Your task to perform on an android device: Go to battery settings Image 0: 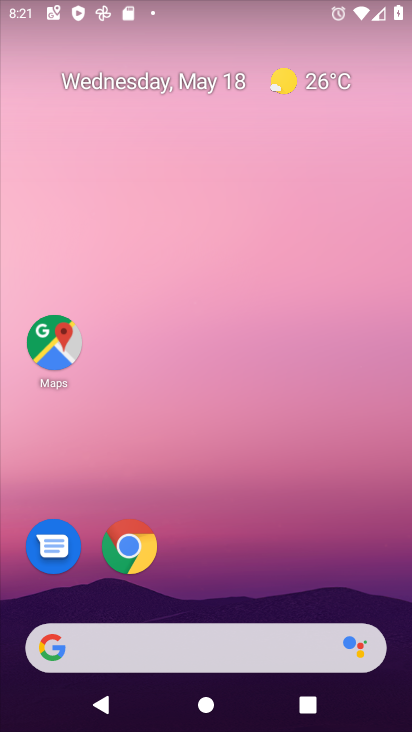
Step 0: drag from (386, 629) to (65, 0)
Your task to perform on an android device: Go to battery settings Image 1: 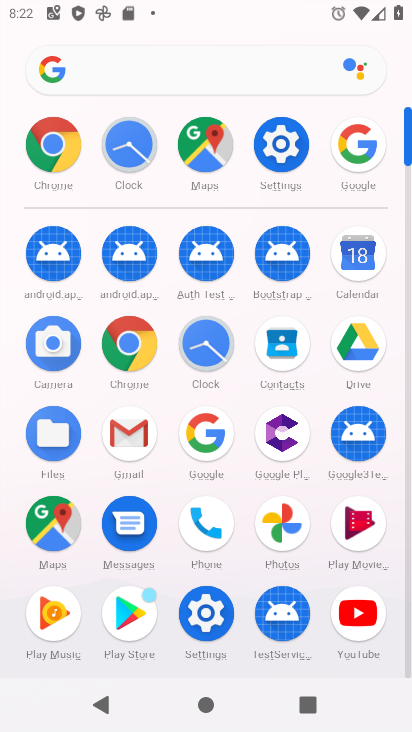
Step 1: click (214, 602)
Your task to perform on an android device: Go to battery settings Image 2: 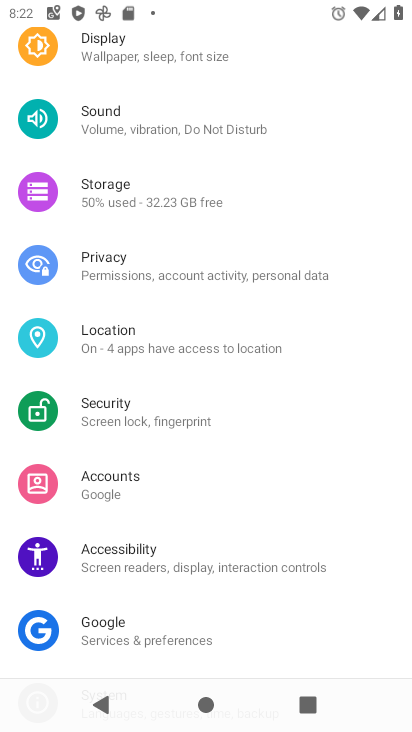
Step 2: drag from (165, 157) to (154, 595)
Your task to perform on an android device: Go to battery settings Image 3: 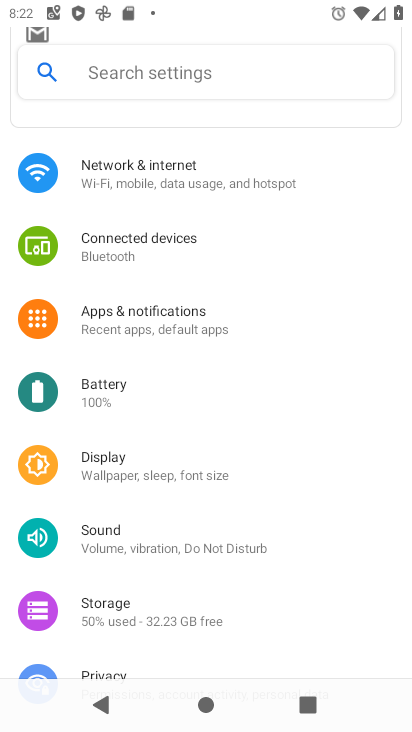
Step 3: click (131, 394)
Your task to perform on an android device: Go to battery settings Image 4: 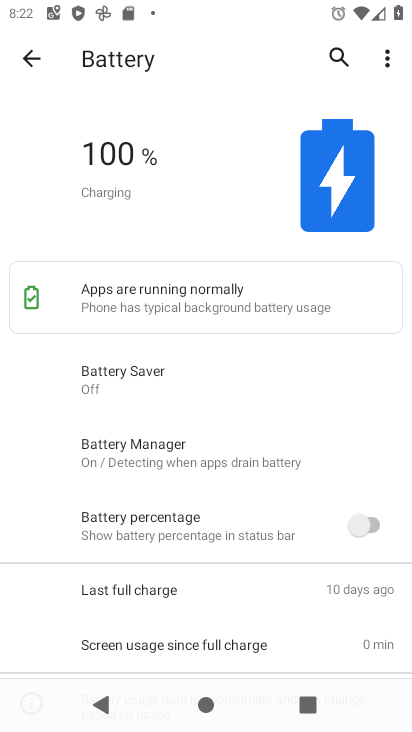
Step 4: task complete